Your task to perform on an android device: turn on the 24-hour format for clock Image 0: 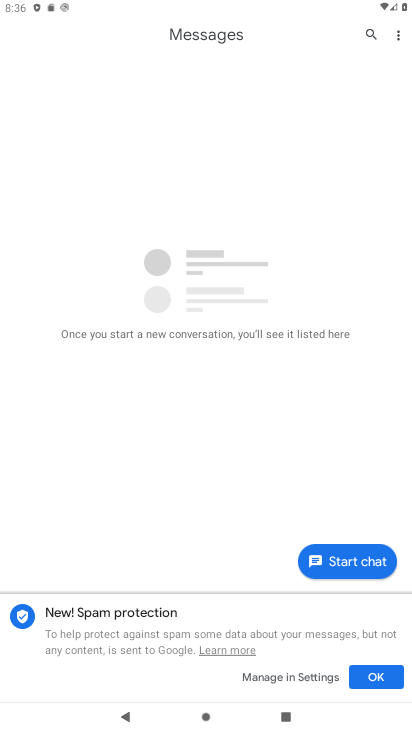
Step 0: press home button
Your task to perform on an android device: turn on the 24-hour format for clock Image 1: 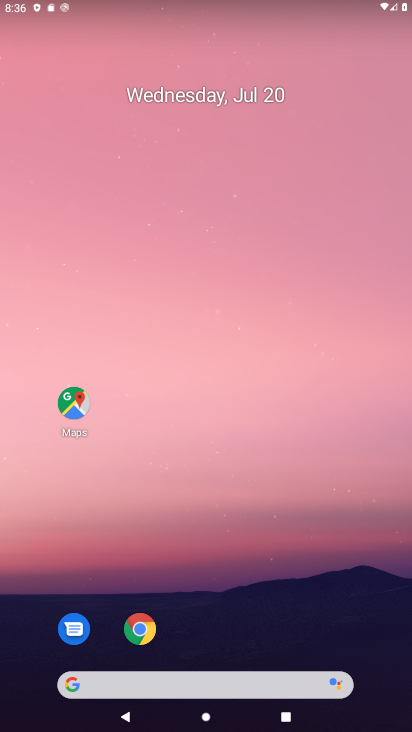
Step 1: drag from (216, 601) to (220, 122)
Your task to perform on an android device: turn on the 24-hour format for clock Image 2: 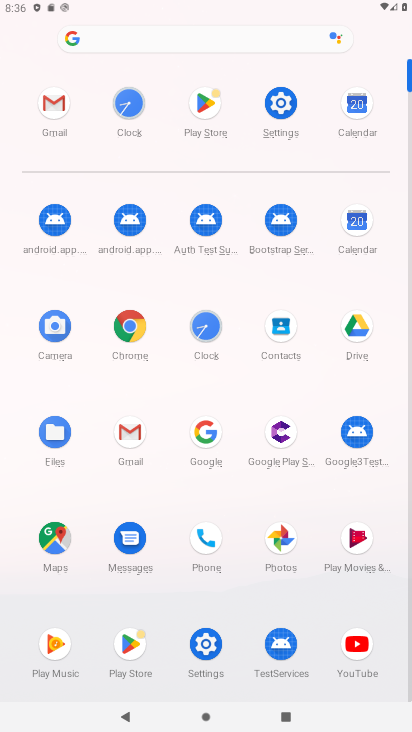
Step 2: click (198, 340)
Your task to perform on an android device: turn on the 24-hour format for clock Image 3: 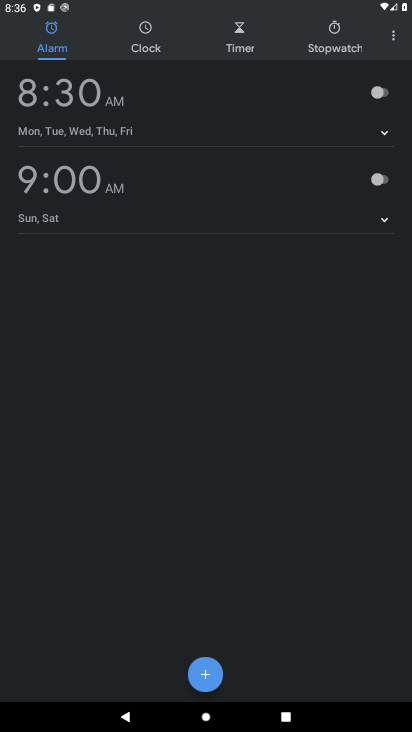
Step 3: click (386, 39)
Your task to perform on an android device: turn on the 24-hour format for clock Image 4: 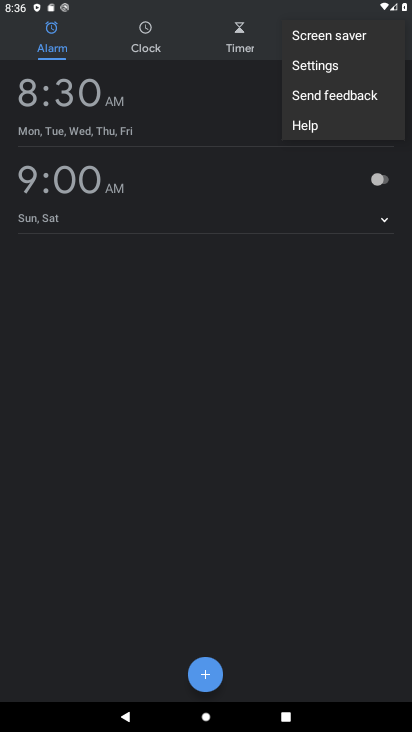
Step 4: click (331, 64)
Your task to perform on an android device: turn on the 24-hour format for clock Image 5: 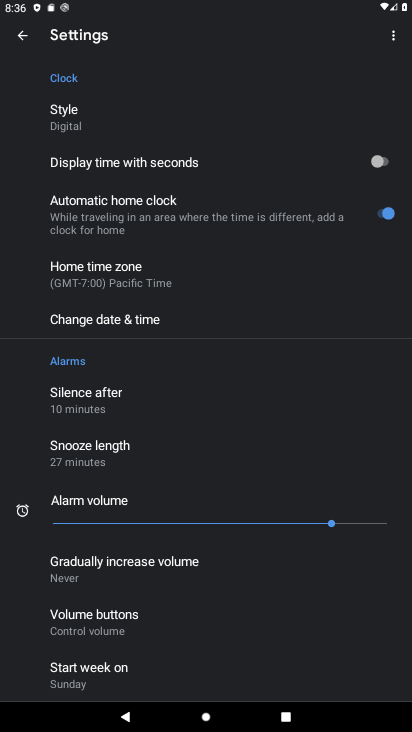
Step 5: click (128, 326)
Your task to perform on an android device: turn on the 24-hour format for clock Image 6: 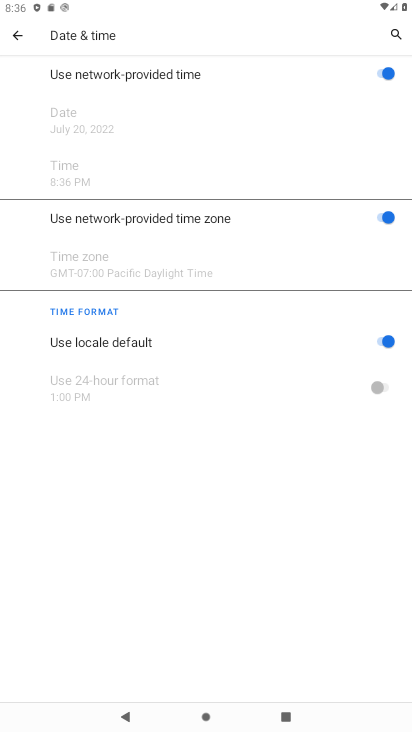
Step 6: click (374, 344)
Your task to perform on an android device: turn on the 24-hour format for clock Image 7: 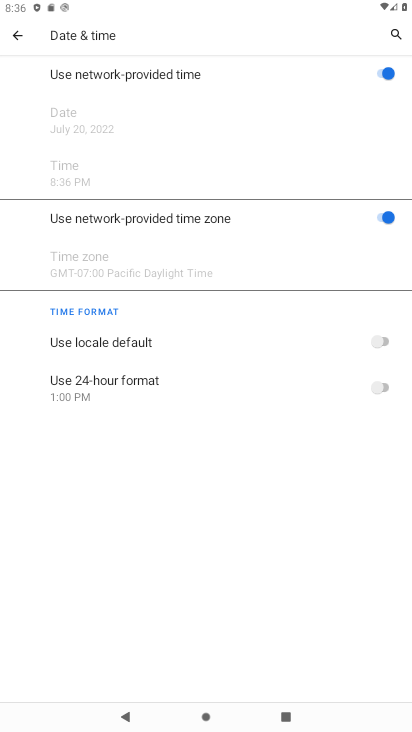
Step 7: click (387, 376)
Your task to perform on an android device: turn on the 24-hour format for clock Image 8: 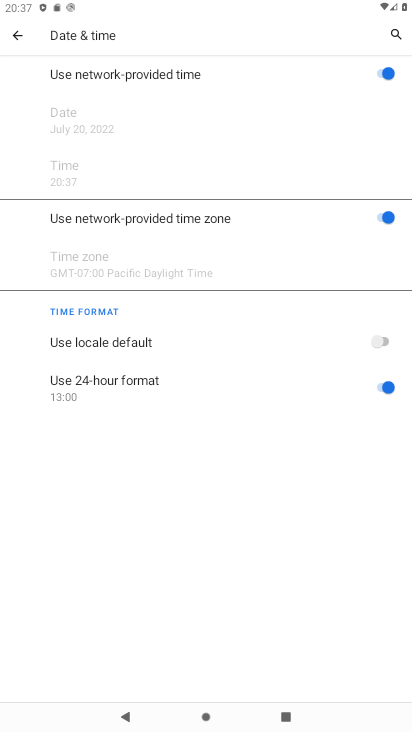
Step 8: task complete